Your task to perform on an android device: toggle wifi Image 0: 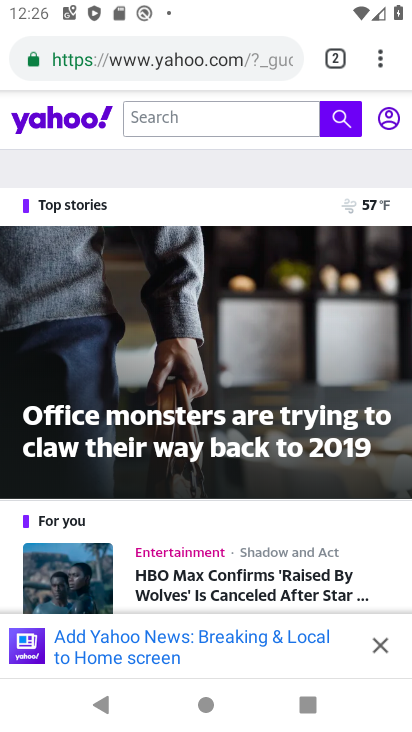
Step 0: press home button
Your task to perform on an android device: toggle wifi Image 1: 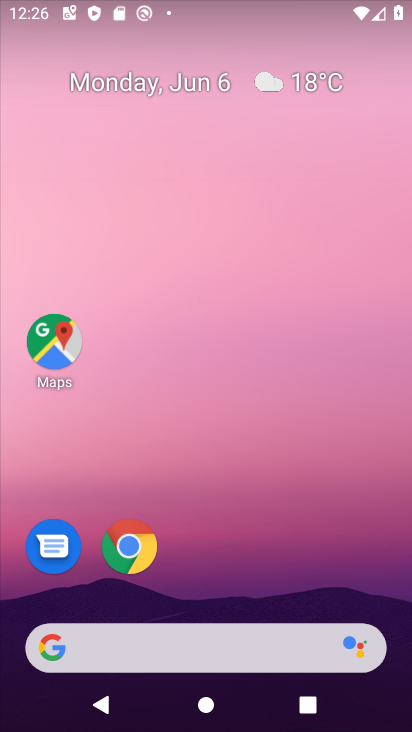
Step 1: drag from (303, 574) to (292, 157)
Your task to perform on an android device: toggle wifi Image 2: 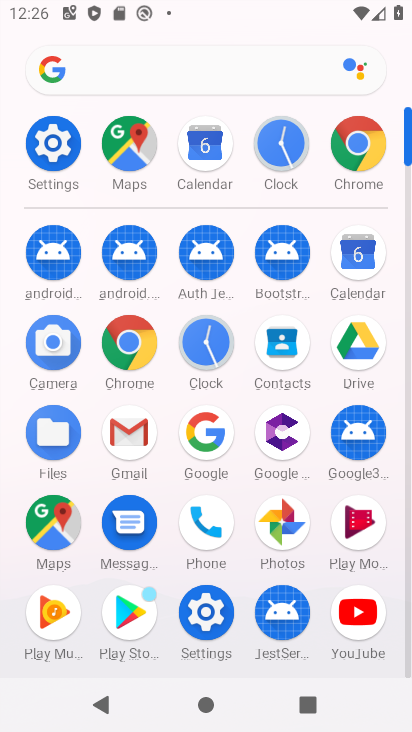
Step 2: click (43, 145)
Your task to perform on an android device: toggle wifi Image 3: 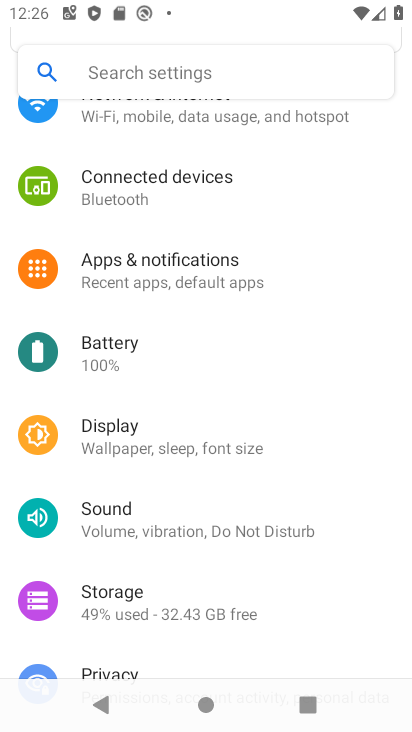
Step 3: drag from (49, 147) to (5, 607)
Your task to perform on an android device: toggle wifi Image 4: 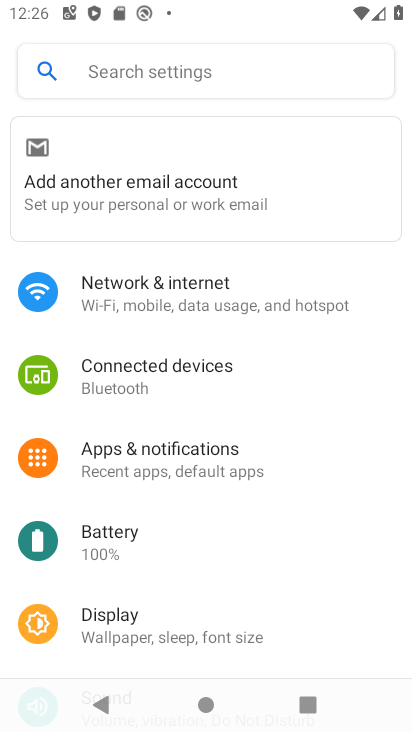
Step 4: click (131, 300)
Your task to perform on an android device: toggle wifi Image 5: 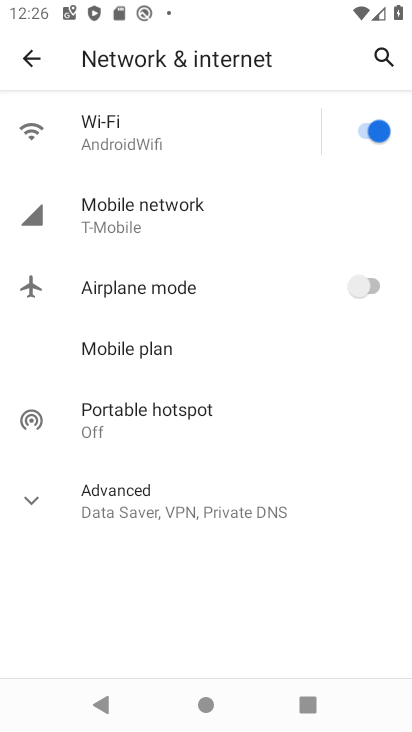
Step 5: click (370, 128)
Your task to perform on an android device: toggle wifi Image 6: 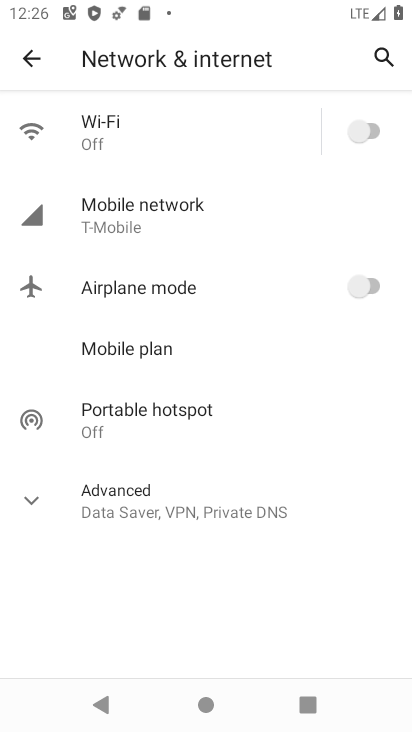
Step 6: task complete